Your task to perform on an android device: How much does a3 bedroom apartment rent for in Portland? Image 0: 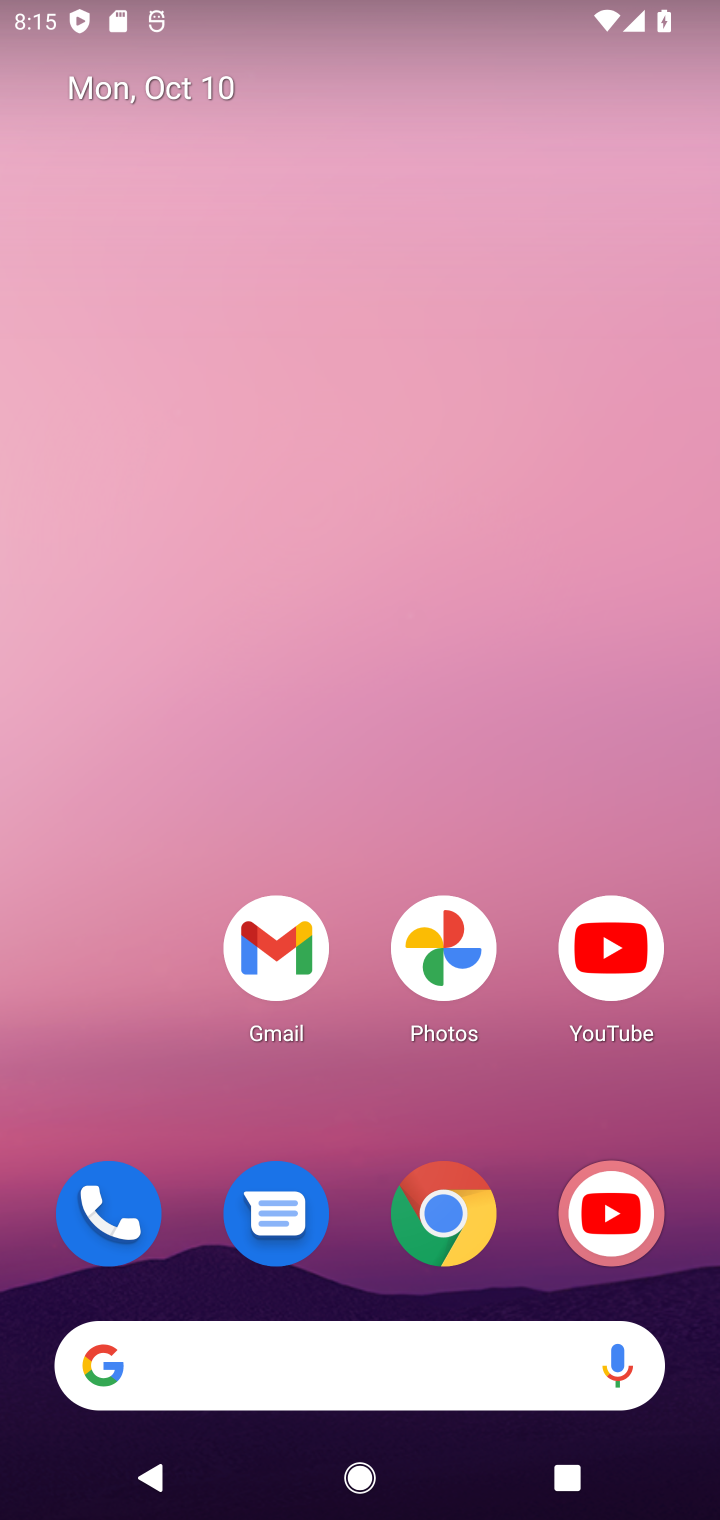
Step 0: click (245, 1322)
Your task to perform on an android device: How much does a3 bedroom apartment rent for in Portland? Image 1: 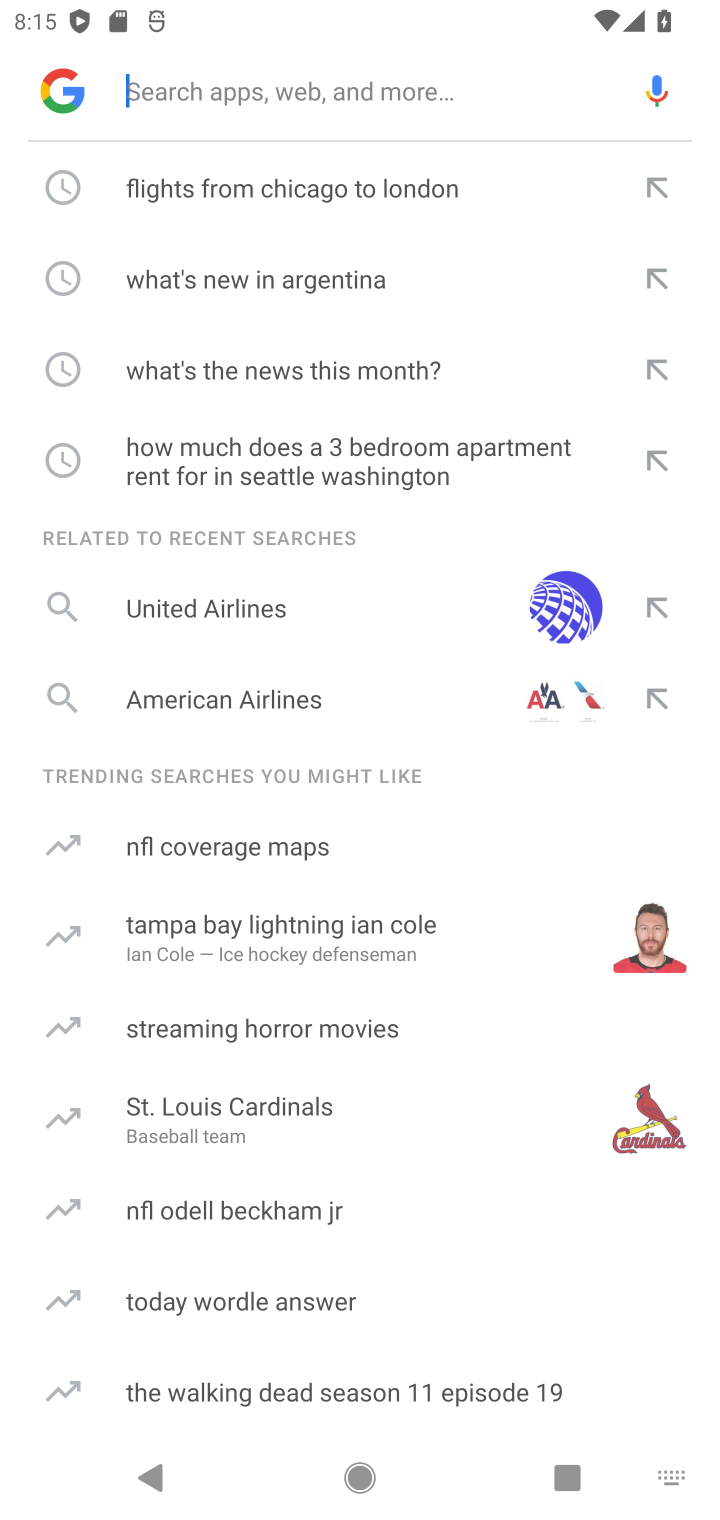
Step 1: click (291, 1369)
Your task to perform on an android device: How much does a3 bedroom apartment rent for in Portland? Image 2: 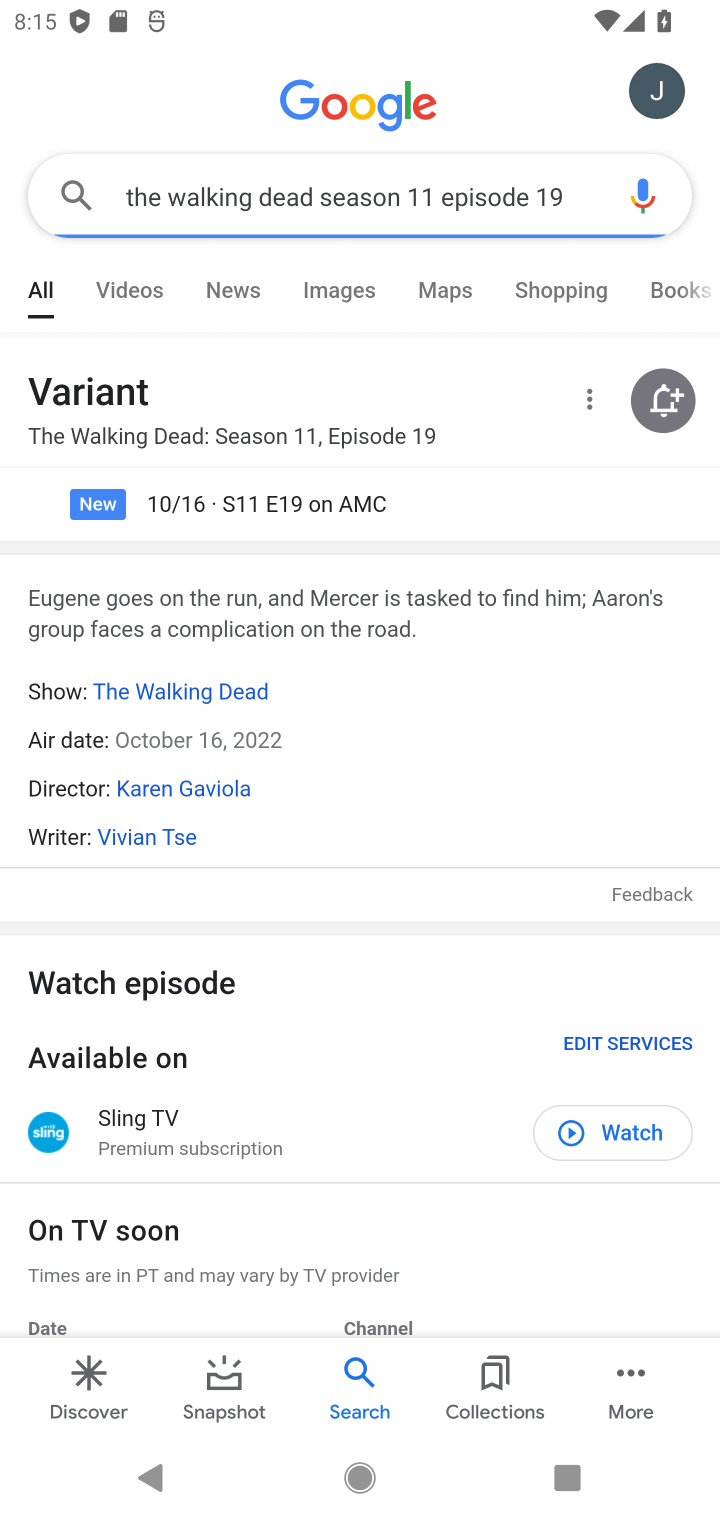
Step 2: press back button
Your task to perform on an android device: How much does a3 bedroom apartment rent for in Portland? Image 3: 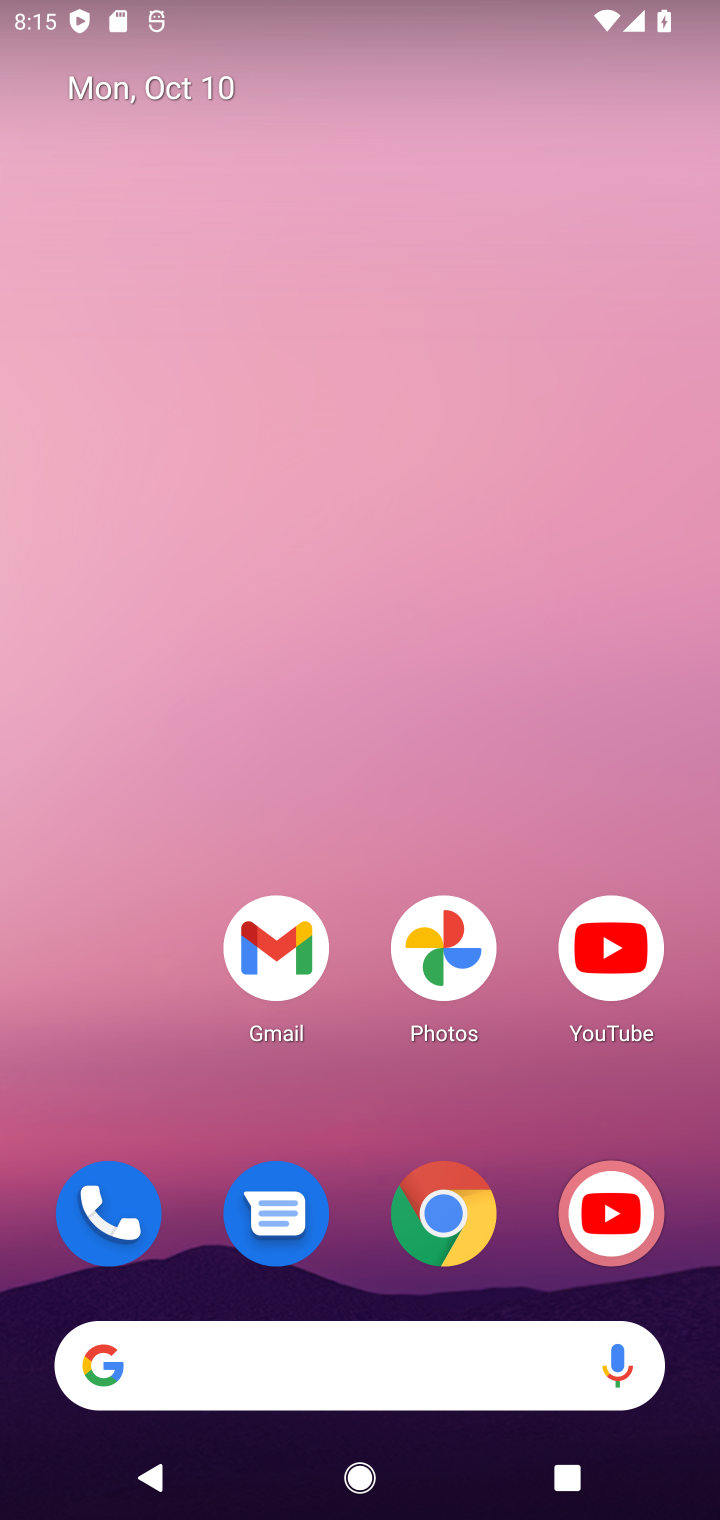
Step 3: click (193, 1382)
Your task to perform on an android device: How much does a3 bedroom apartment rent for in Portland? Image 4: 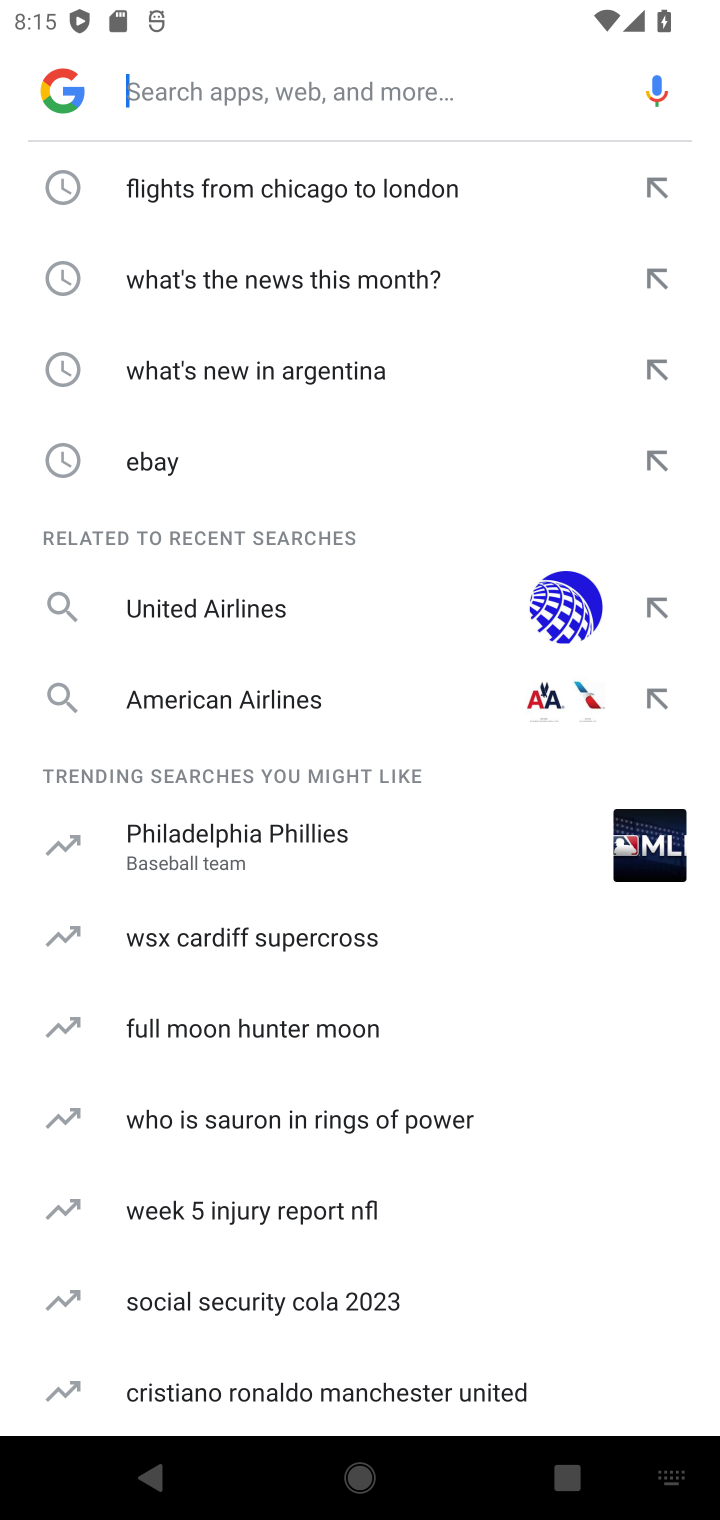
Step 4: click (246, 91)
Your task to perform on an android device: How much does a3 bedroom apartment rent for in Portland? Image 5: 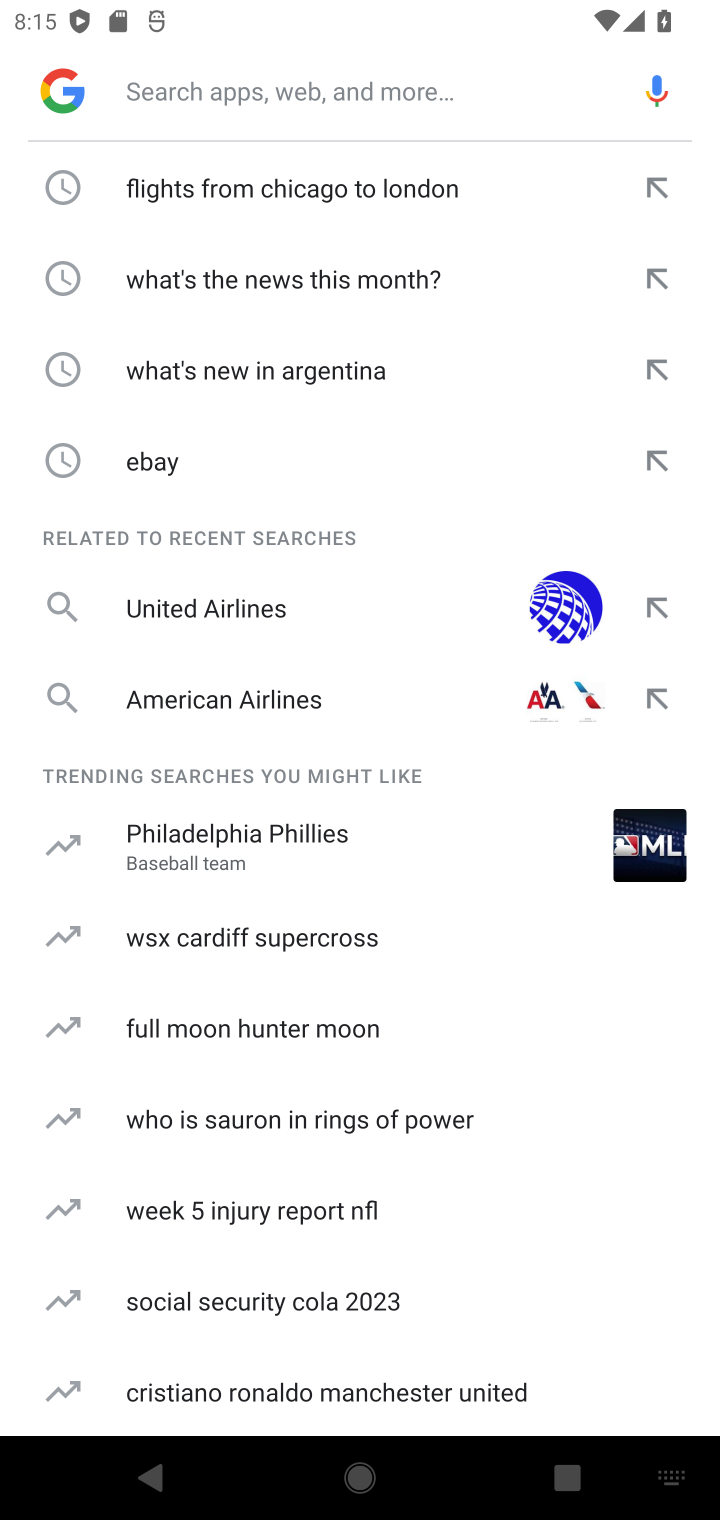
Step 5: type "How much does a3 bedroom apartment rent for in Portland?"
Your task to perform on an android device: How much does a3 bedroom apartment rent for in Portland? Image 6: 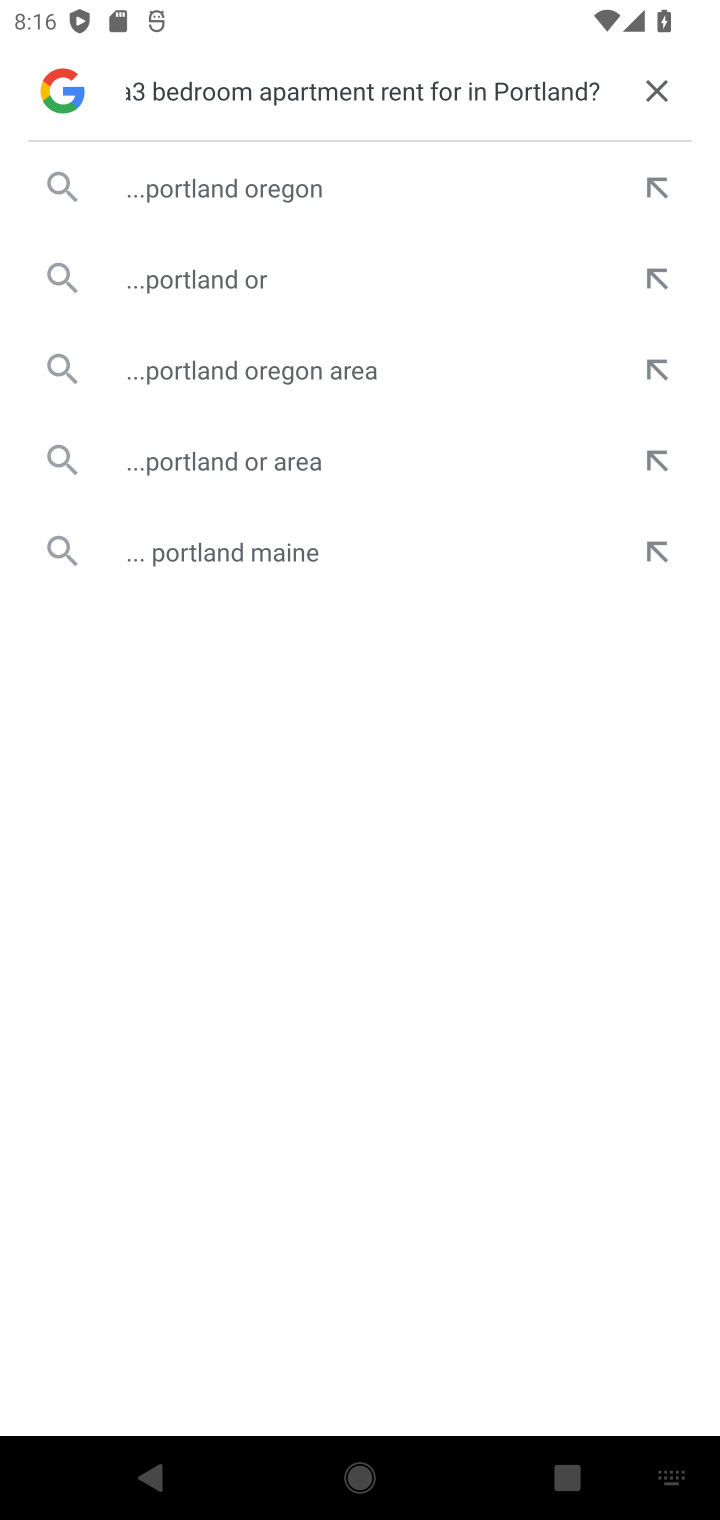
Step 6: click (278, 204)
Your task to perform on an android device: How much does a3 bedroom apartment rent for in Portland? Image 7: 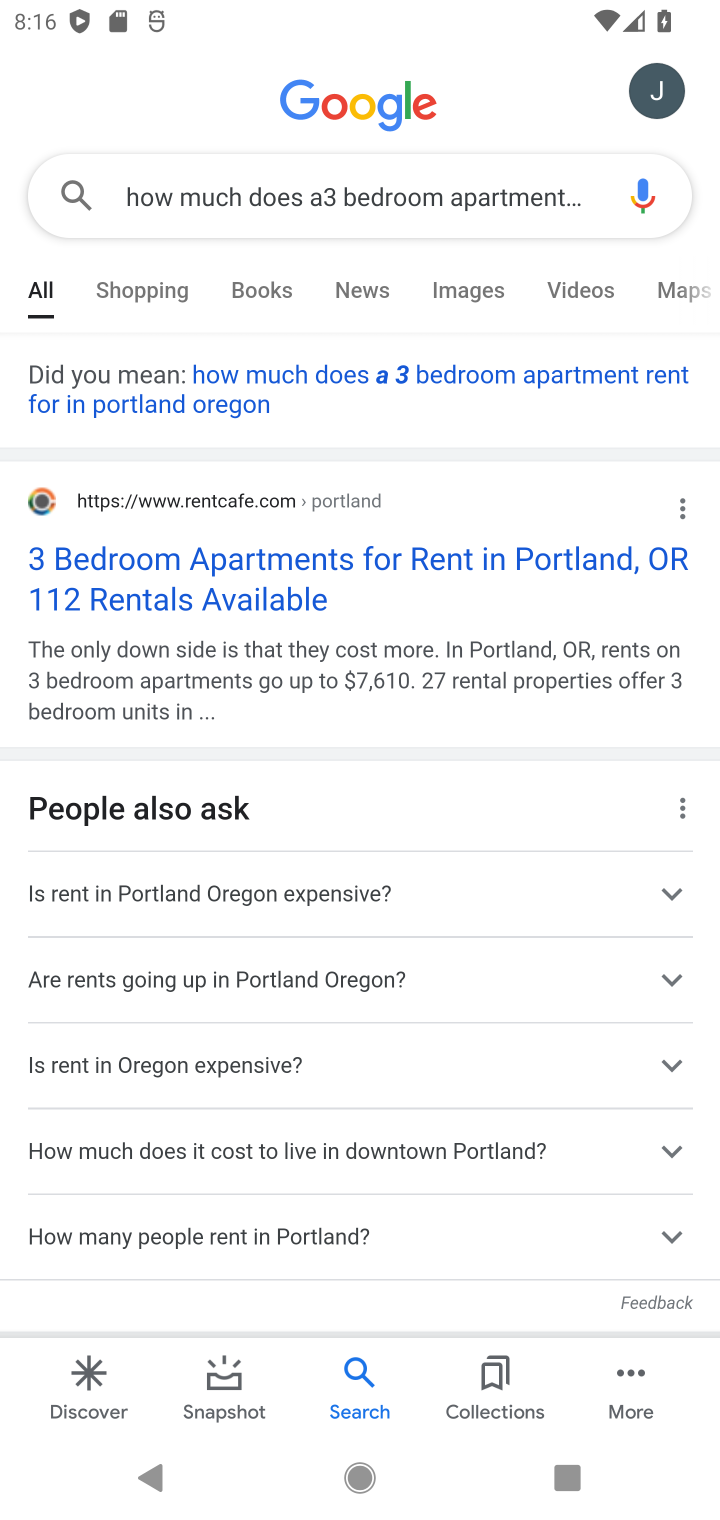
Step 7: click (403, 1164)
Your task to perform on an android device: How much does a3 bedroom apartment rent for in Portland? Image 8: 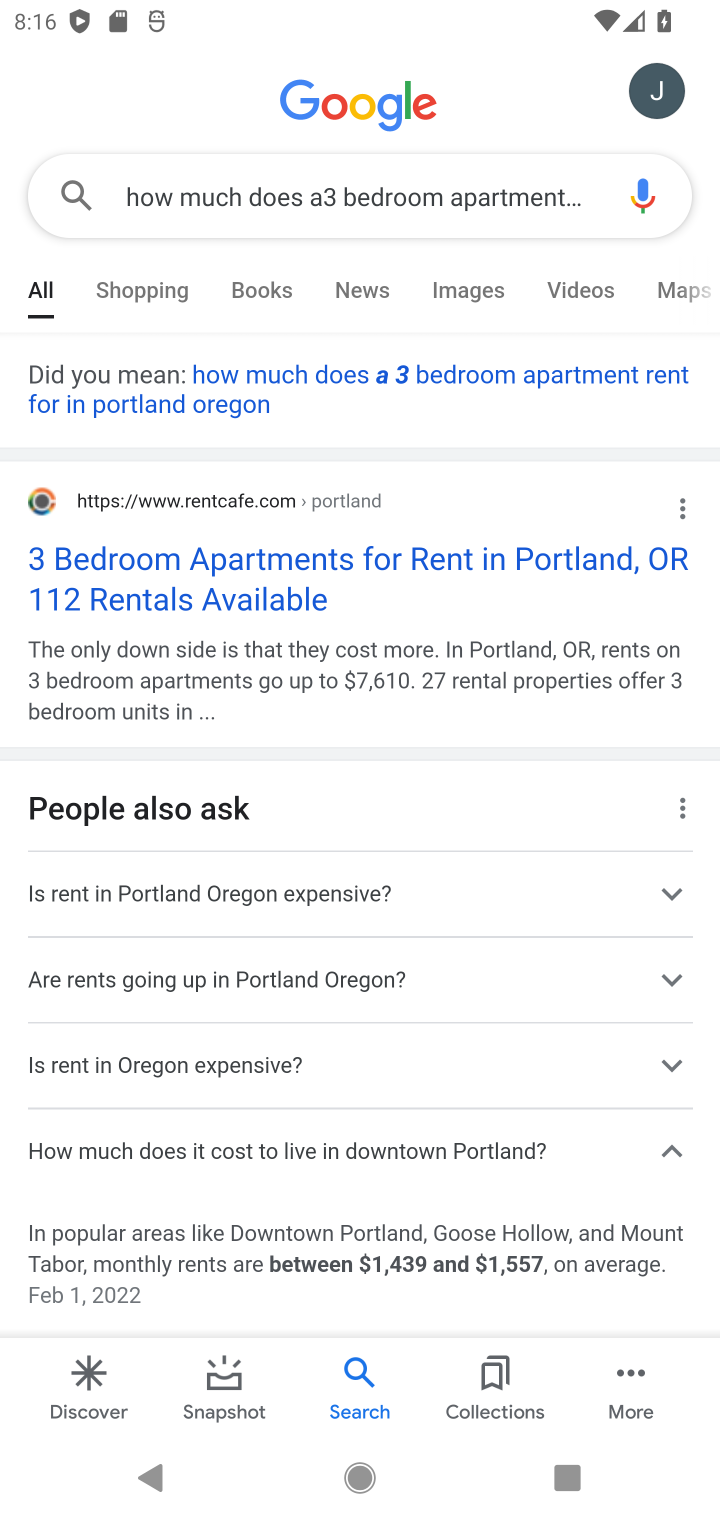
Step 8: task complete